Your task to perform on an android device: Open the Play Movies app and select the watchlist tab. Image 0: 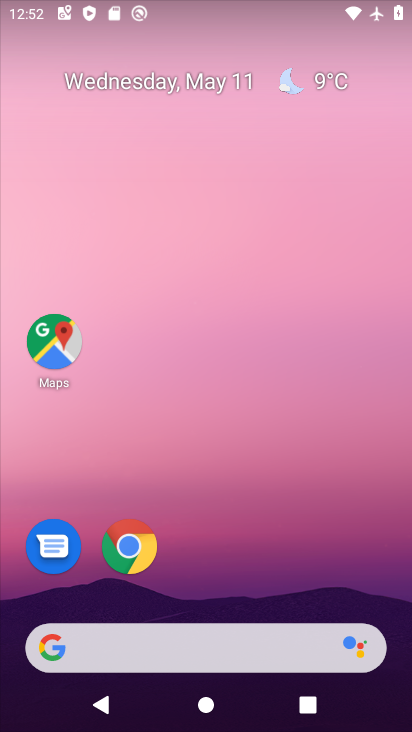
Step 0: drag from (272, 642) to (244, 52)
Your task to perform on an android device: Open the Play Movies app and select the watchlist tab. Image 1: 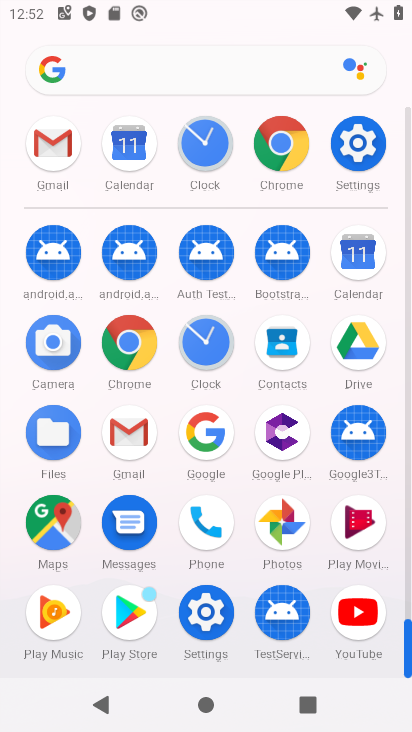
Step 1: click (371, 515)
Your task to perform on an android device: Open the Play Movies app and select the watchlist tab. Image 2: 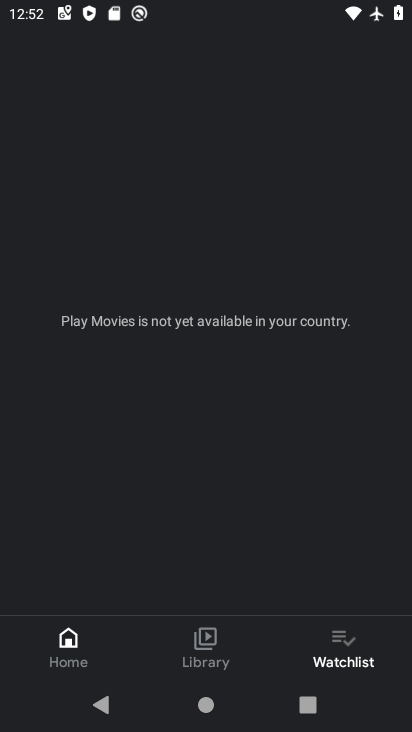
Step 2: click (341, 645)
Your task to perform on an android device: Open the Play Movies app and select the watchlist tab. Image 3: 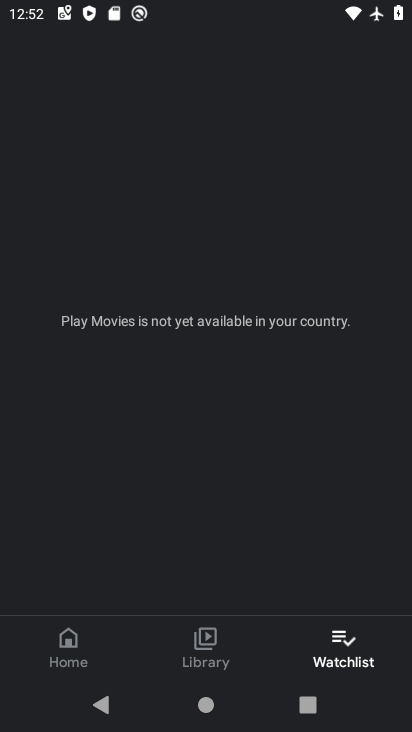
Step 3: task complete